Your task to perform on an android device: change timer sound Image 0: 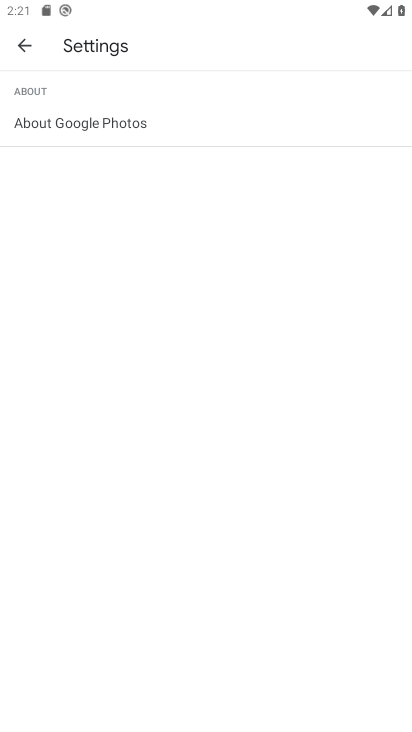
Step 0: press back button
Your task to perform on an android device: change timer sound Image 1: 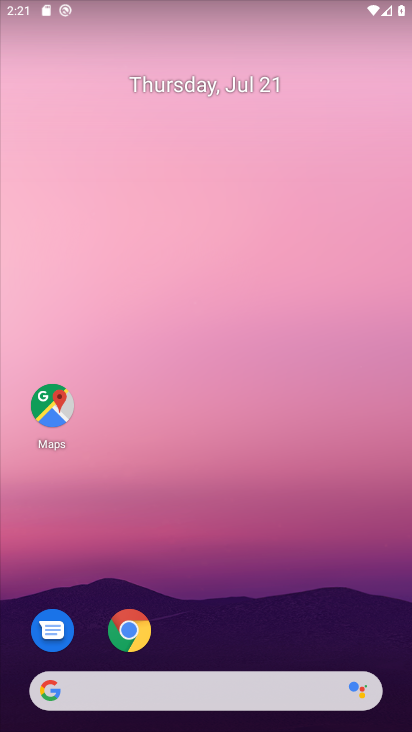
Step 1: drag from (249, 713) to (201, 46)
Your task to perform on an android device: change timer sound Image 2: 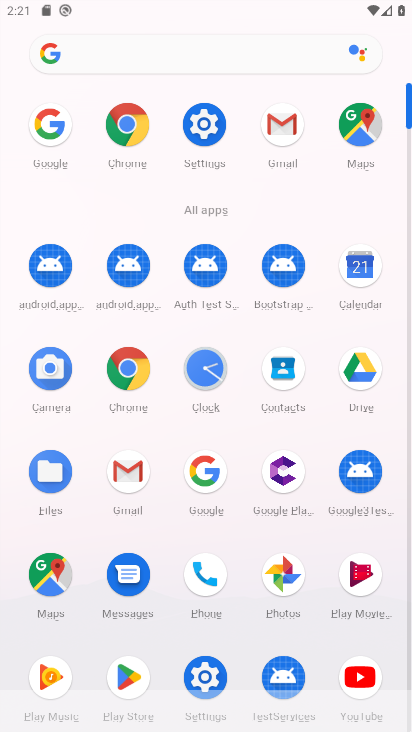
Step 2: click (206, 366)
Your task to perform on an android device: change timer sound Image 3: 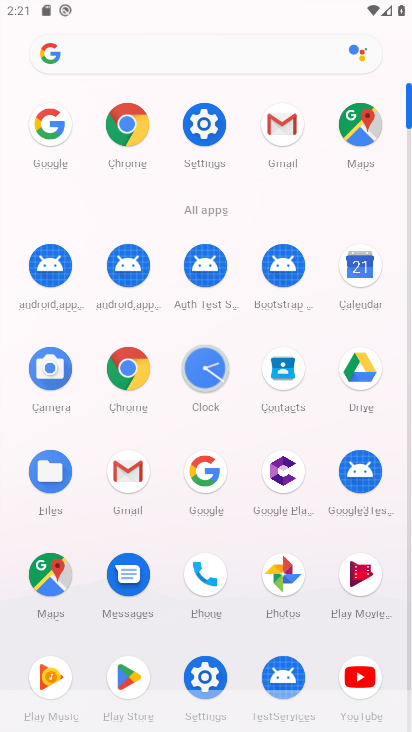
Step 3: click (206, 366)
Your task to perform on an android device: change timer sound Image 4: 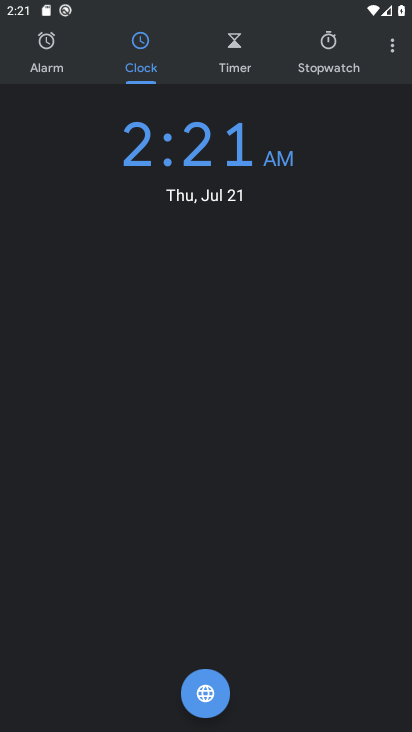
Step 4: drag from (395, 43) to (282, 97)
Your task to perform on an android device: change timer sound Image 5: 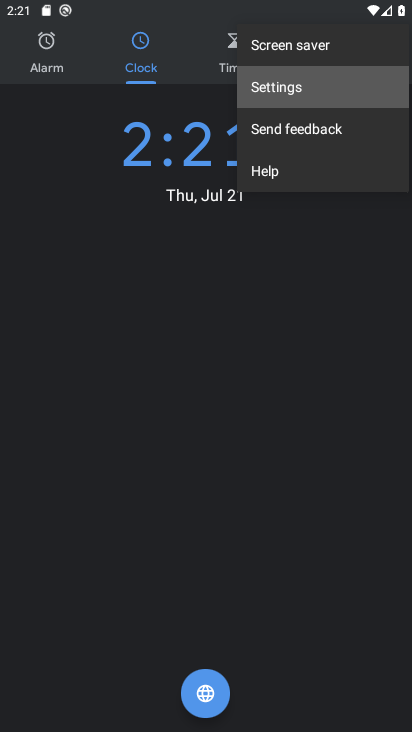
Step 5: click (281, 111)
Your task to perform on an android device: change timer sound Image 6: 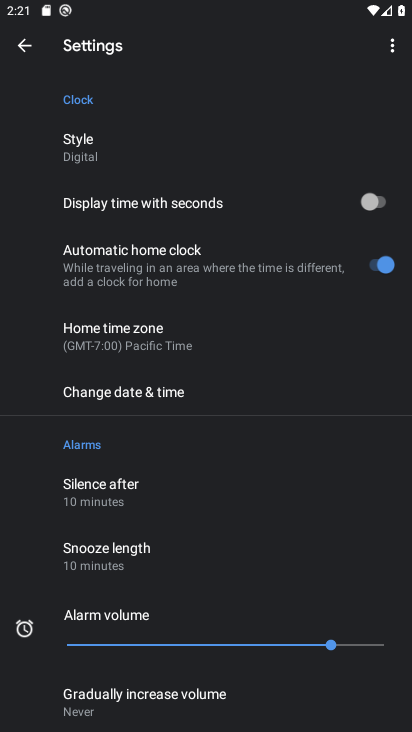
Step 6: click (85, 137)
Your task to perform on an android device: change timer sound Image 7: 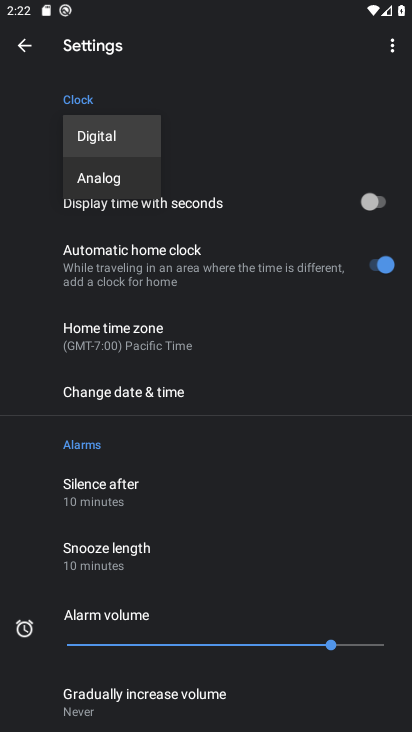
Step 7: click (104, 173)
Your task to perform on an android device: change timer sound Image 8: 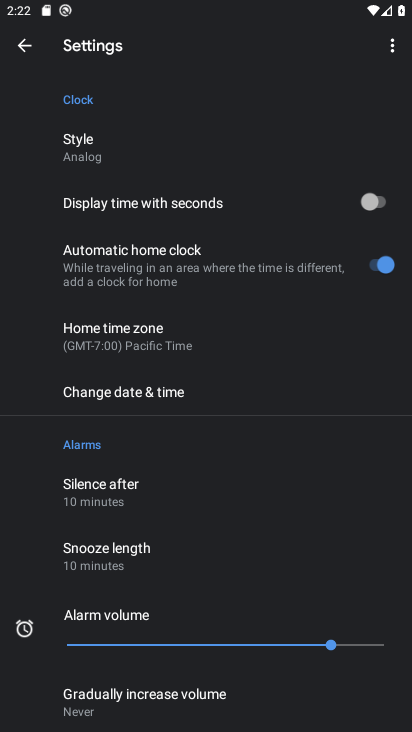
Step 8: task complete